Your task to perform on an android device: toggle location history Image 0: 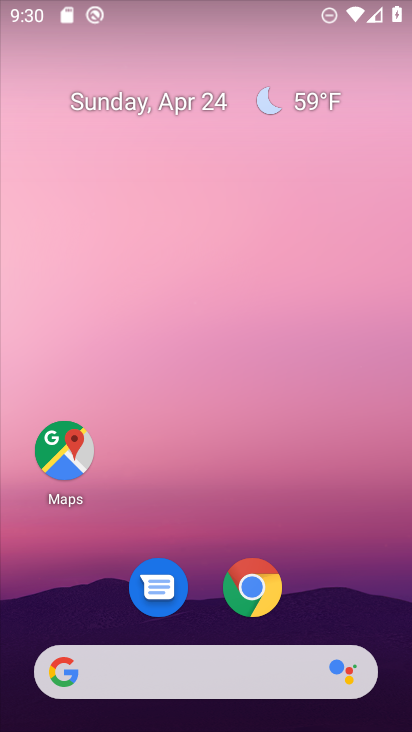
Step 0: drag from (205, 448) to (228, 107)
Your task to perform on an android device: toggle location history Image 1: 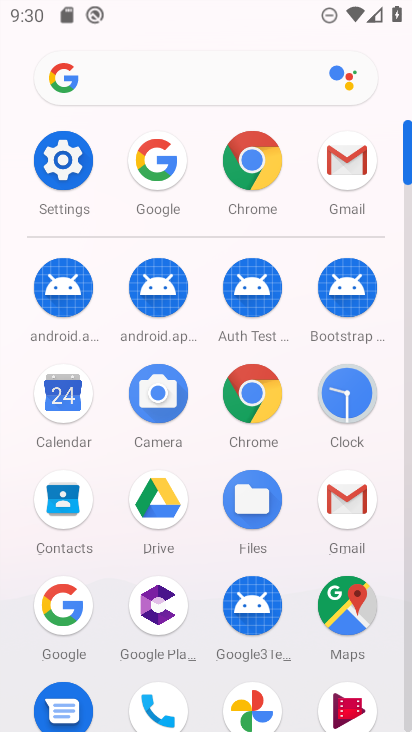
Step 1: click (64, 161)
Your task to perform on an android device: toggle location history Image 2: 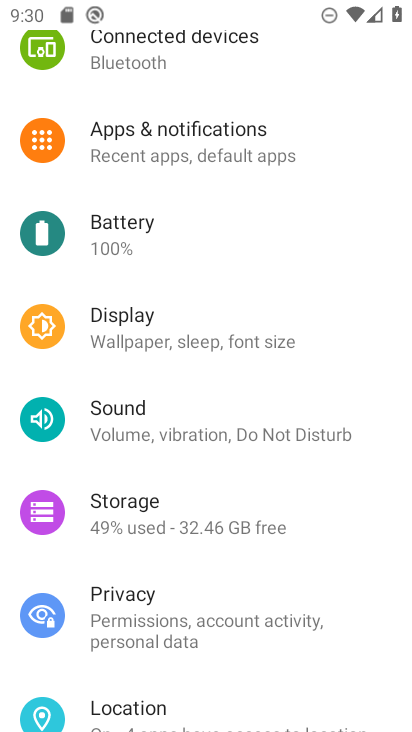
Step 2: drag from (181, 487) to (253, 363)
Your task to perform on an android device: toggle location history Image 3: 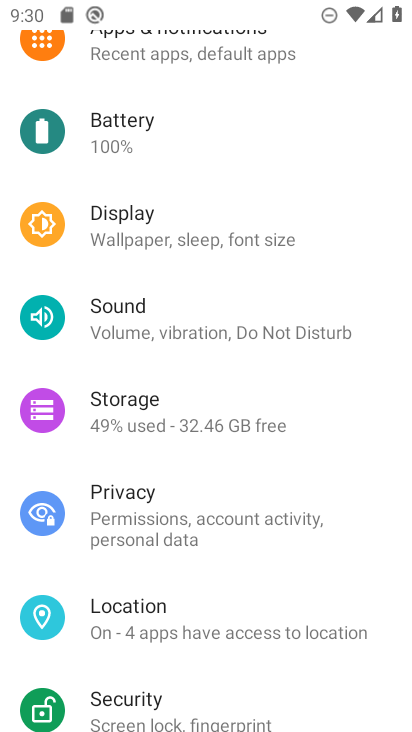
Step 3: click (152, 610)
Your task to perform on an android device: toggle location history Image 4: 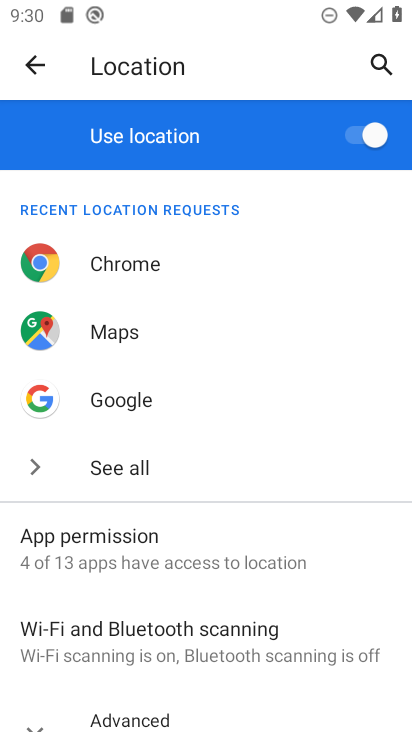
Step 4: drag from (234, 587) to (286, 472)
Your task to perform on an android device: toggle location history Image 5: 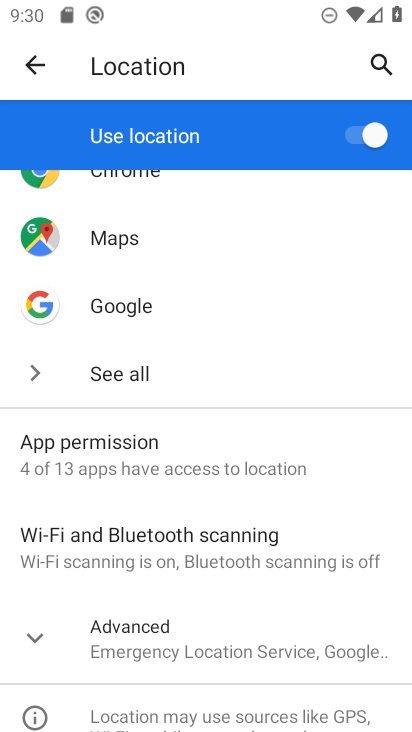
Step 5: click (191, 639)
Your task to perform on an android device: toggle location history Image 6: 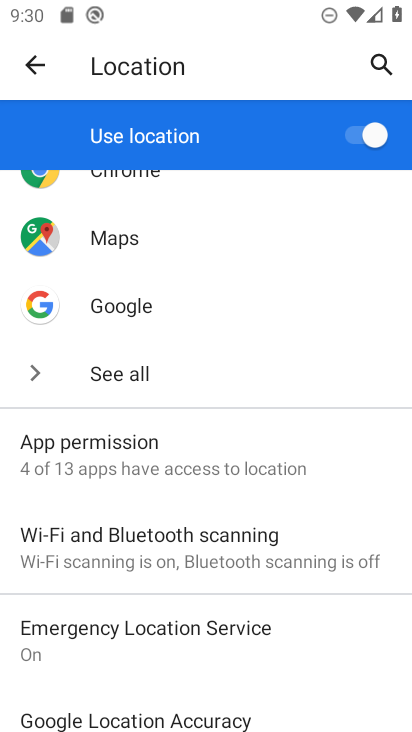
Step 6: drag from (129, 645) to (216, 523)
Your task to perform on an android device: toggle location history Image 7: 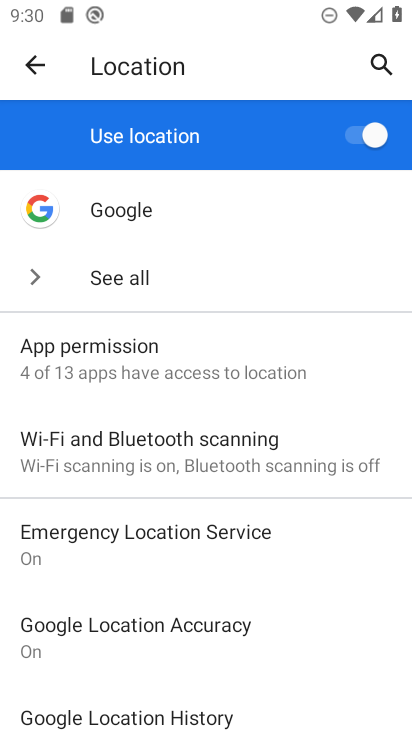
Step 7: drag from (146, 641) to (225, 521)
Your task to perform on an android device: toggle location history Image 8: 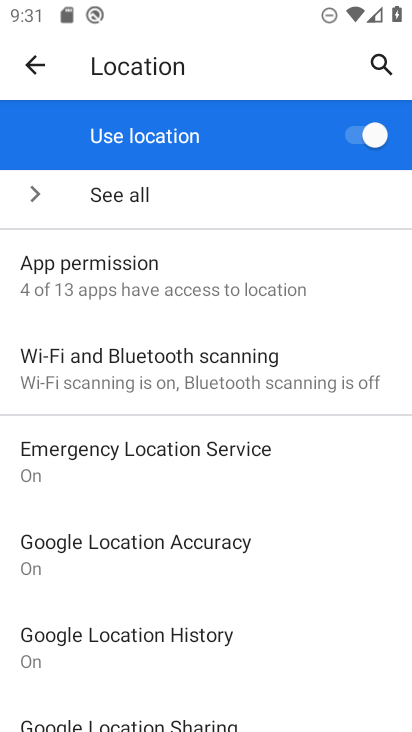
Step 8: click (142, 639)
Your task to perform on an android device: toggle location history Image 9: 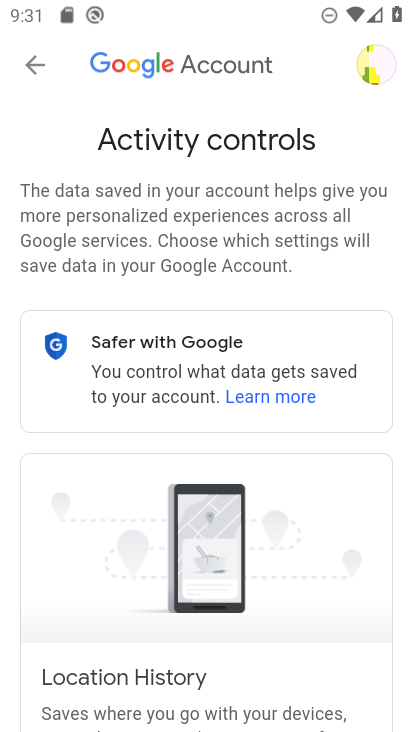
Step 9: task complete